Your task to perform on an android device: star an email in the gmail app Image 0: 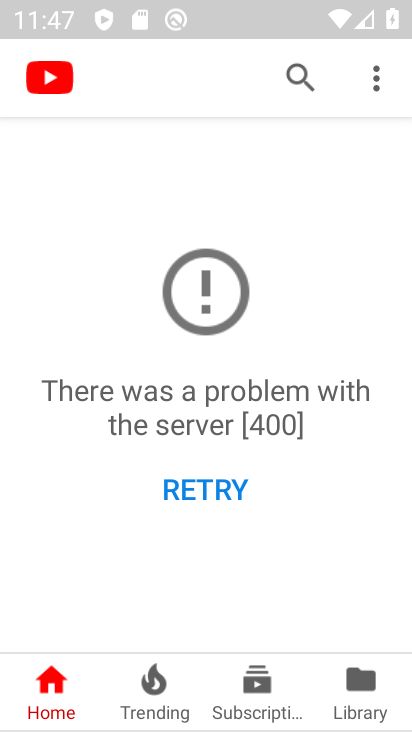
Step 0: press home button
Your task to perform on an android device: star an email in the gmail app Image 1: 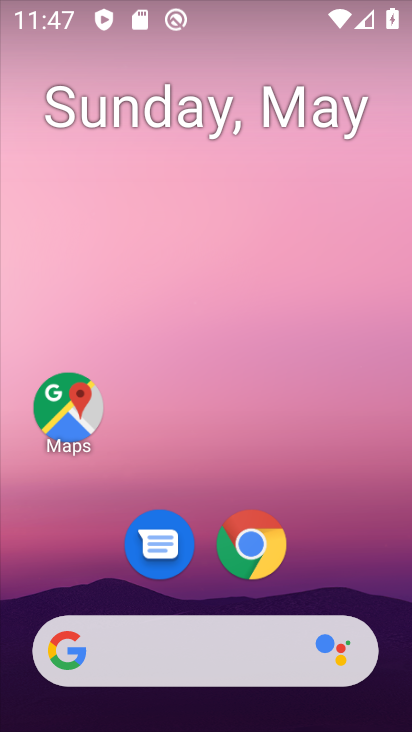
Step 1: drag from (330, 643) to (276, 19)
Your task to perform on an android device: star an email in the gmail app Image 2: 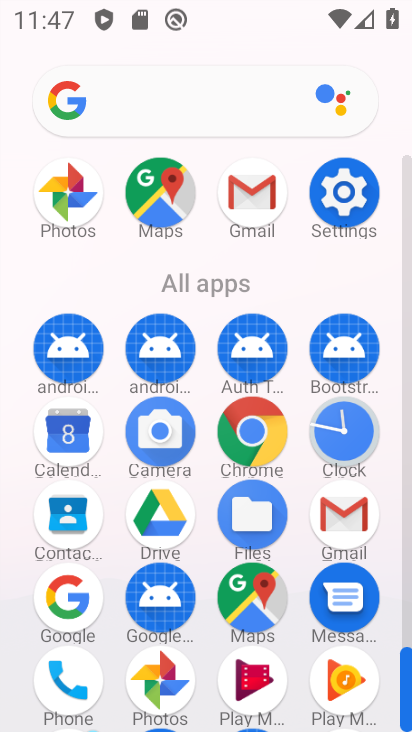
Step 2: click (343, 523)
Your task to perform on an android device: star an email in the gmail app Image 3: 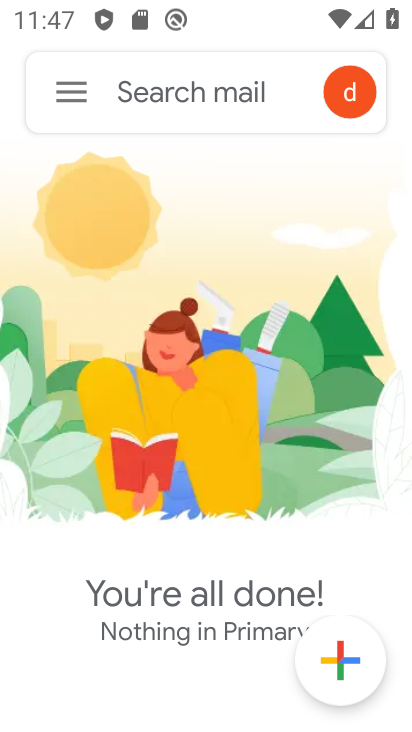
Step 3: click (76, 98)
Your task to perform on an android device: star an email in the gmail app Image 4: 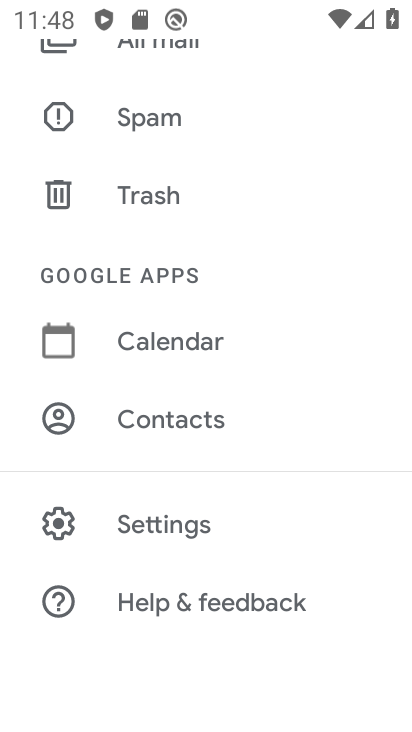
Step 4: drag from (256, 148) to (286, 693)
Your task to perform on an android device: star an email in the gmail app Image 5: 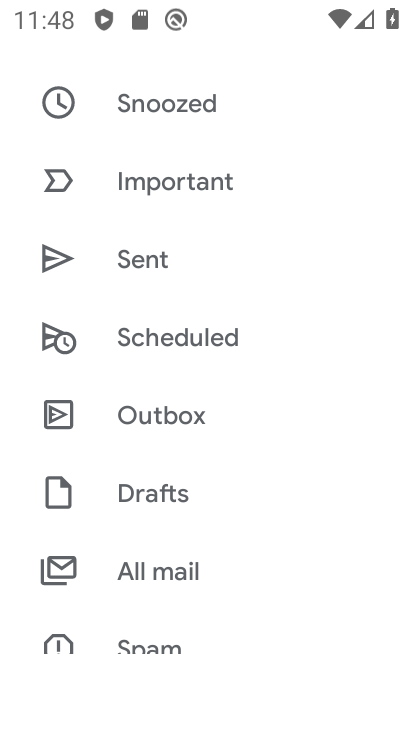
Step 5: drag from (183, 177) to (210, 580)
Your task to perform on an android device: star an email in the gmail app Image 6: 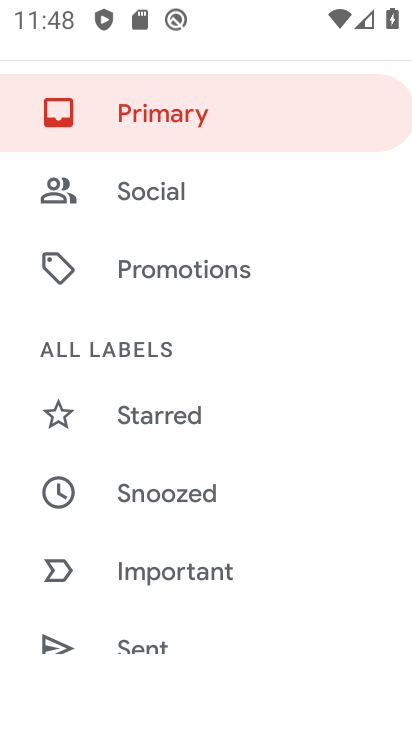
Step 6: click (157, 422)
Your task to perform on an android device: star an email in the gmail app Image 7: 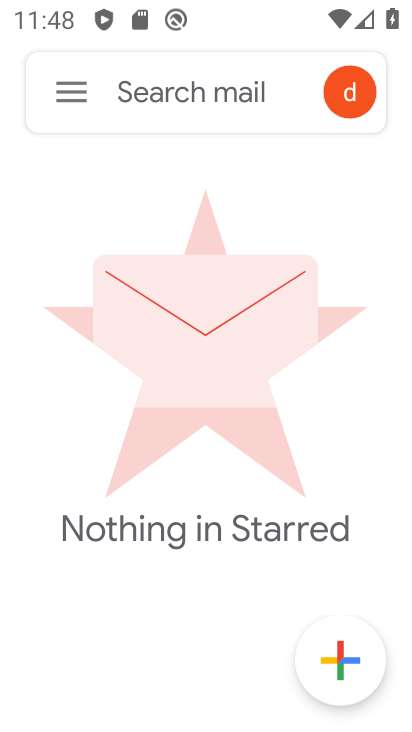
Step 7: task complete